Your task to perform on an android device: Open Chrome and go to the settings page Image 0: 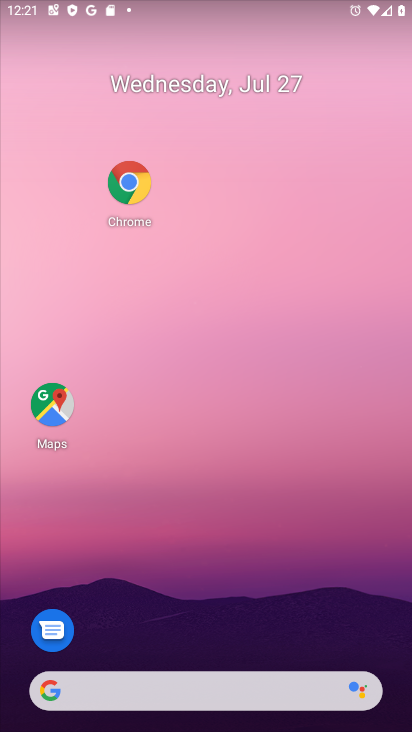
Step 0: drag from (227, 723) to (288, 94)
Your task to perform on an android device: Open Chrome and go to the settings page Image 1: 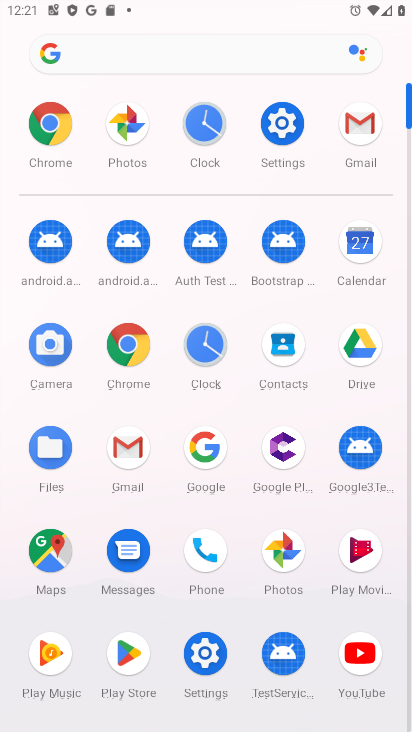
Step 1: click (50, 129)
Your task to perform on an android device: Open Chrome and go to the settings page Image 2: 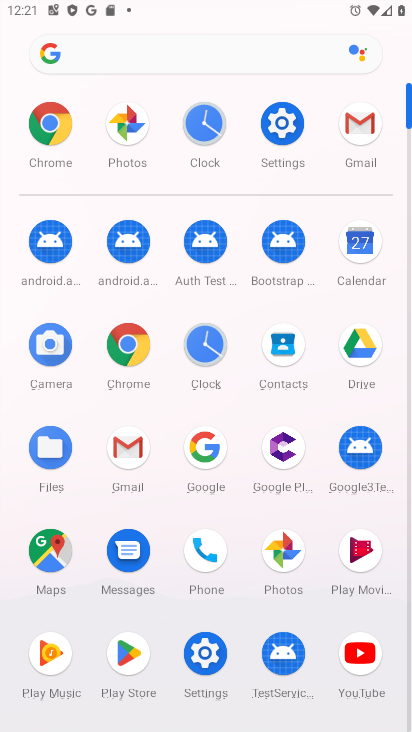
Step 2: click (50, 129)
Your task to perform on an android device: Open Chrome and go to the settings page Image 3: 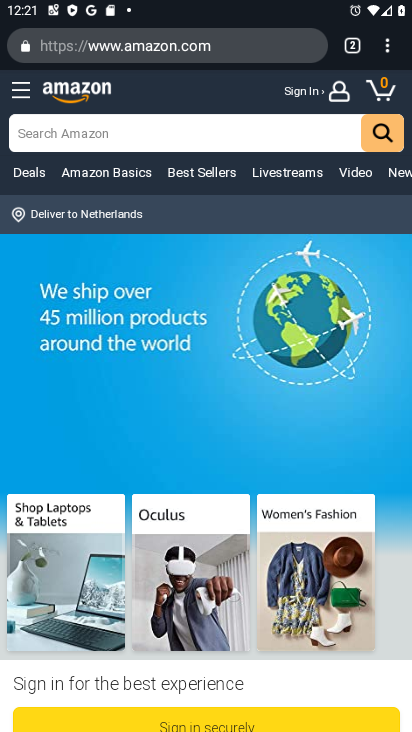
Step 3: click (382, 41)
Your task to perform on an android device: Open Chrome and go to the settings page Image 4: 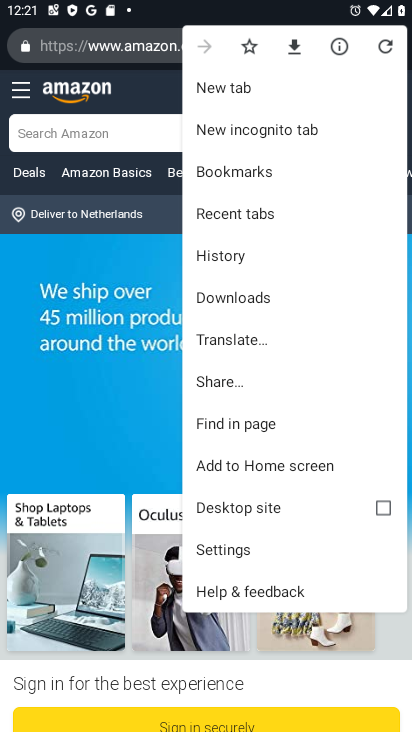
Step 4: click (265, 549)
Your task to perform on an android device: Open Chrome and go to the settings page Image 5: 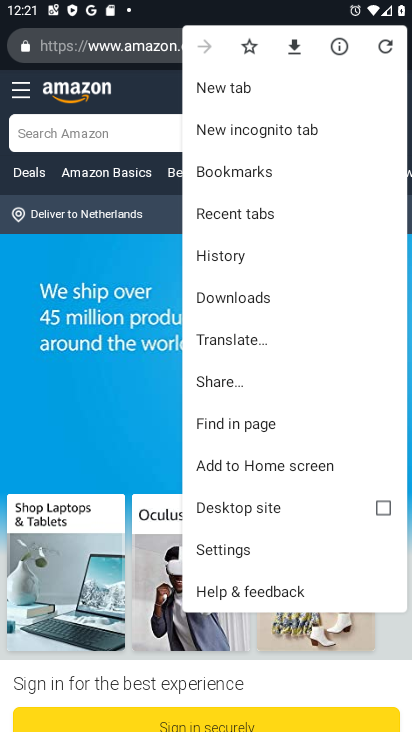
Step 5: click (265, 549)
Your task to perform on an android device: Open Chrome and go to the settings page Image 6: 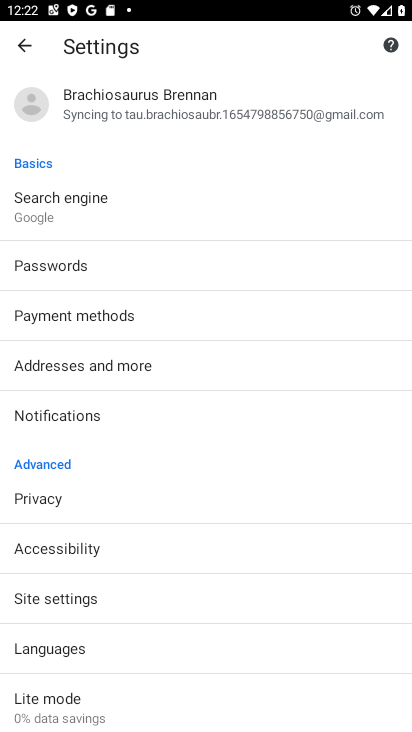
Step 6: task complete